Your task to perform on an android device: Open Youtube and go to "Your channel" Image 0: 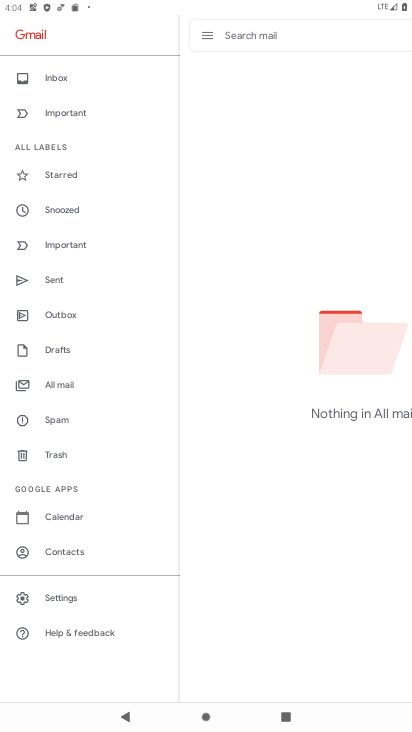
Step 0: press home button
Your task to perform on an android device: Open Youtube and go to "Your channel" Image 1: 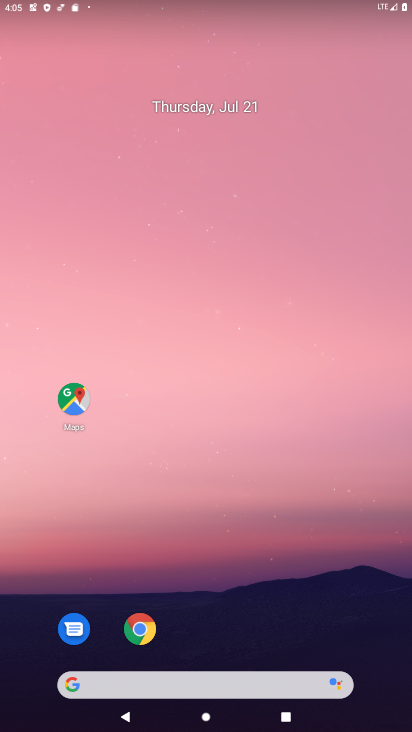
Step 1: drag from (372, 623) to (251, 96)
Your task to perform on an android device: Open Youtube and go to "Your channel" Image 2: 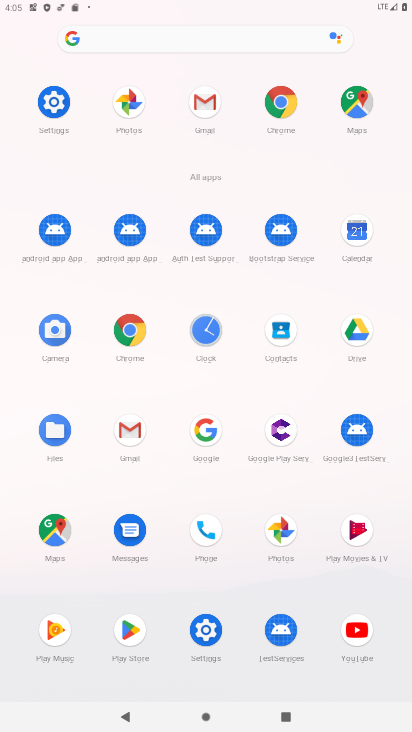
Step 2: click (358, 623)
Your task to perform on an android device: Open Youtube and go to "Your channel" Image 3: 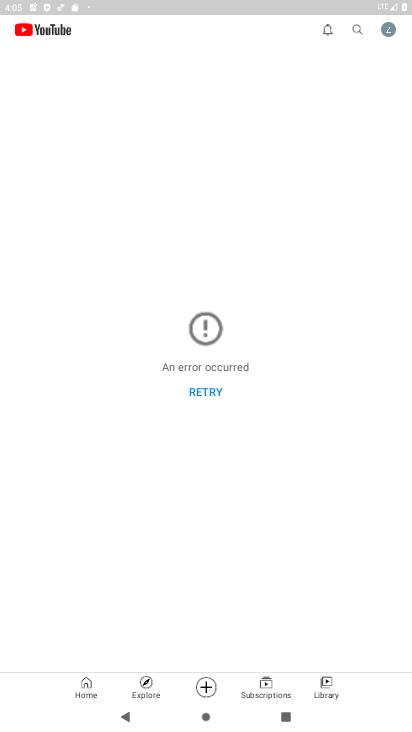
Step 3: click (389, 32)
Your task to perform on an android device: Open Youtube and go to "Your channel" Image 4: 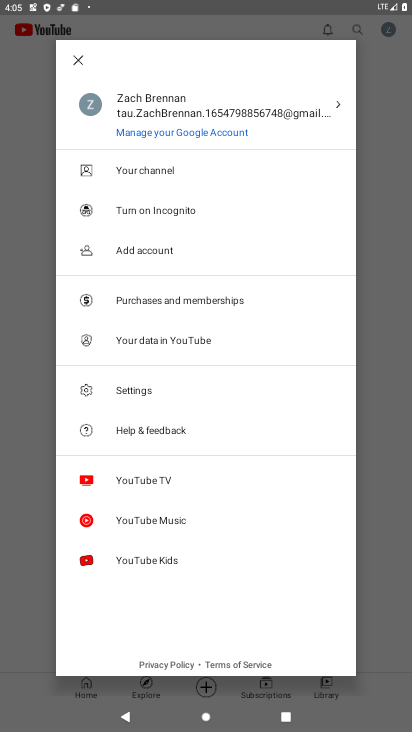
Step 4: click (249, 159)
Your task to perform on an android device: Open Youtube and go to "Your channel" Image 5: 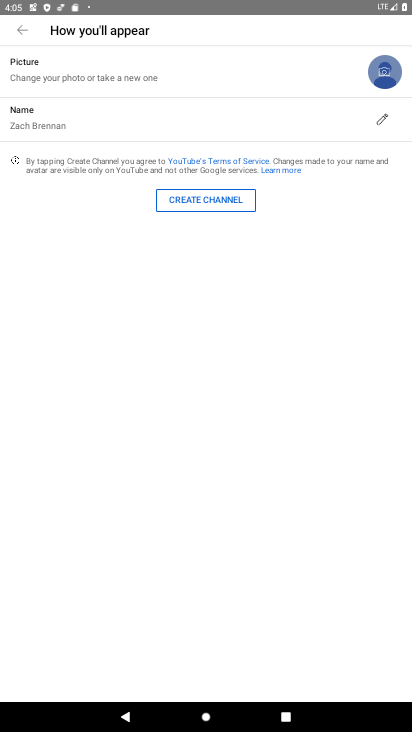
Step 5: task complete